Your task to perform on an android device: snooze an email in the gmail app Image 0: 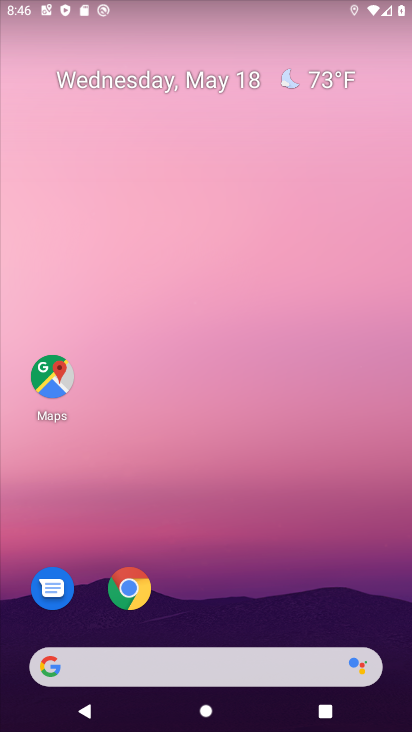
Step 0: drag from (337, 593) to (294, 160)
Your task to perform on an android device: snooze an email in the gmail app Image 1: 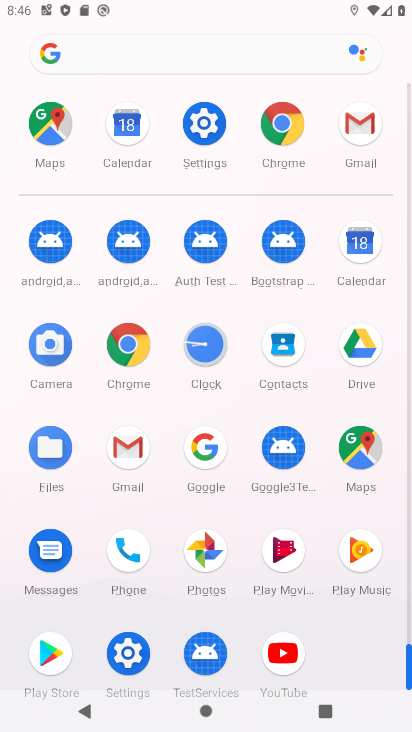
Step 1: click (129, 455)
Your task to perform on an android device: snooze an email in the gmail app Image 2: 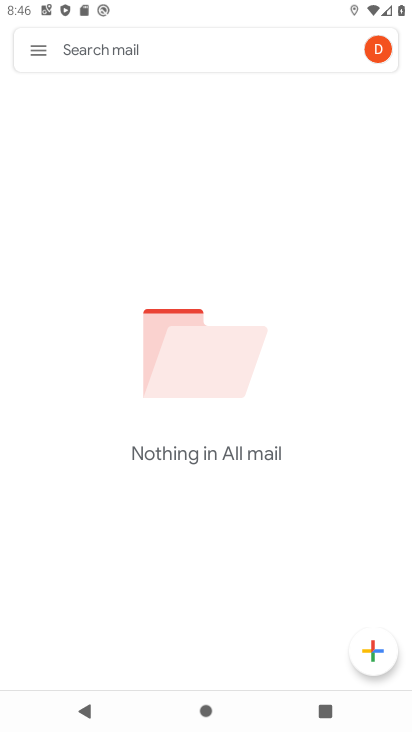
Step 2: click (40, 50)
Your task to perform on an android device: snooze an email in the gmail app Image 3: 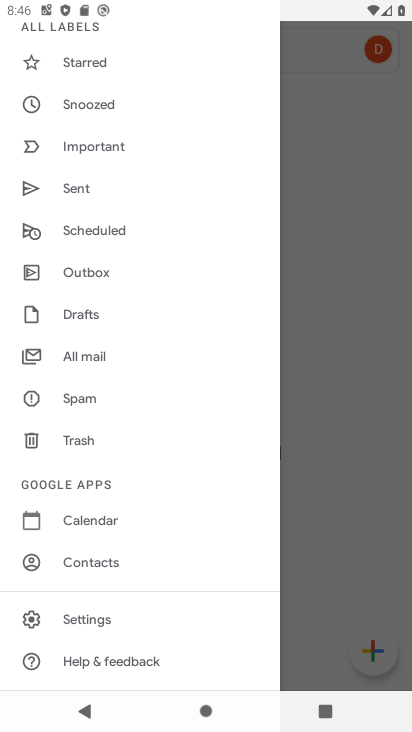
Step 3: click (109, 351)
Your task to perform on an android device: snooze an email in the gmail app Image 4: 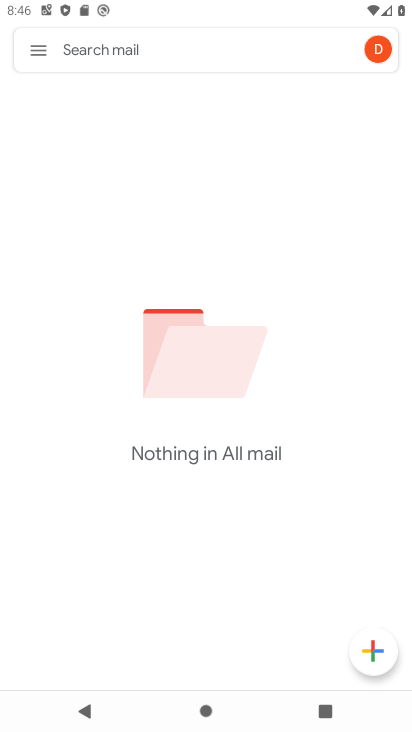
Step 4: task complete